Your task to perform on an android device: turn on the 12-hour format for clock Image 0: 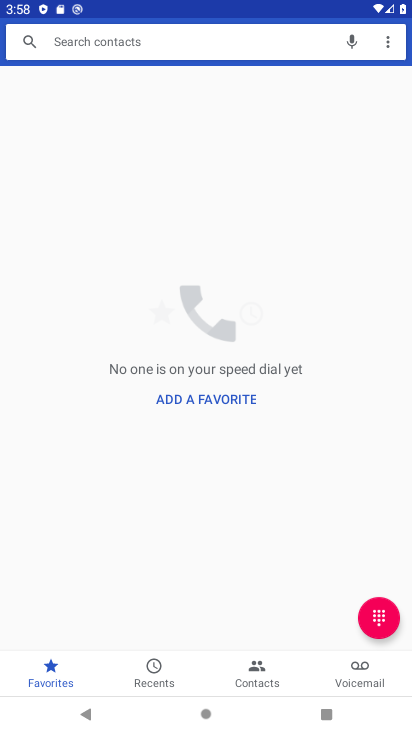
Step 0: press home button
Your task to perform on an android device: turn on the 12-hour format for clock Image 1: 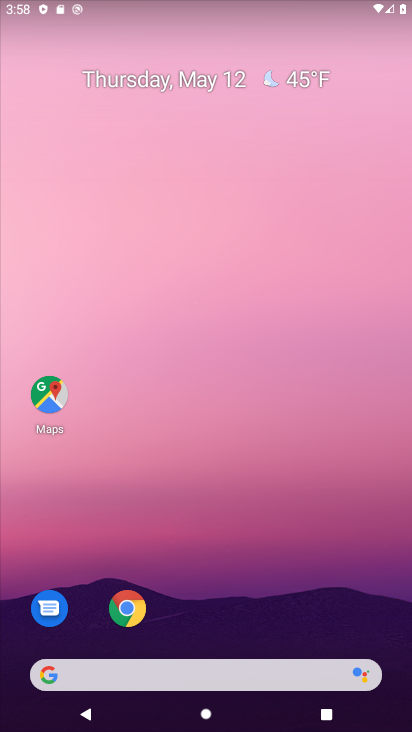
Step 1: drag from (262, 580) to (256, 174)
Your task to perform on an android device: turn on the 12-hour format for clock Image 2: 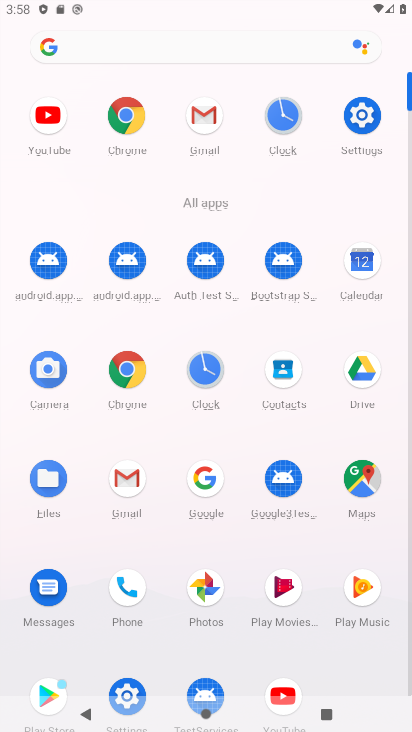
Step 2: click (289, 136)
Your task to perform on an android device: turn on the 12-hour format for clock Image 3: 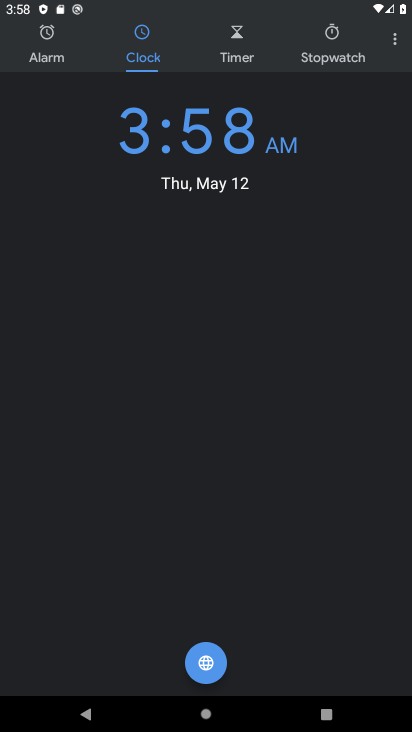
Step 3: click (386, 43)
Your task to perform on an android device: turn on the 12-hour format for clock Image 4: 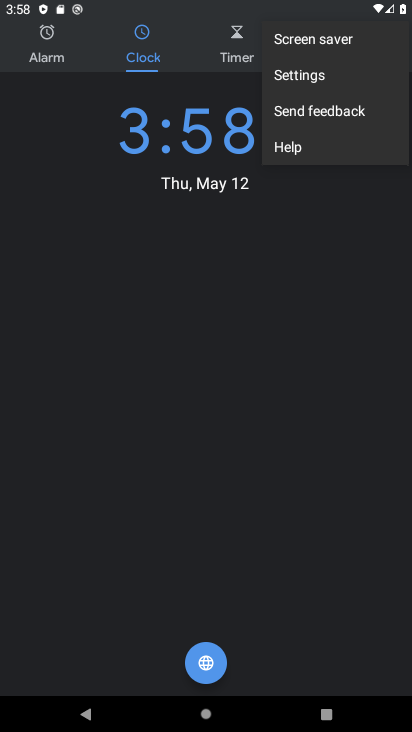
Step 4: click (330, 72)
Your task to perform on an android device: turn on the 12-hour format for clock Image 5: 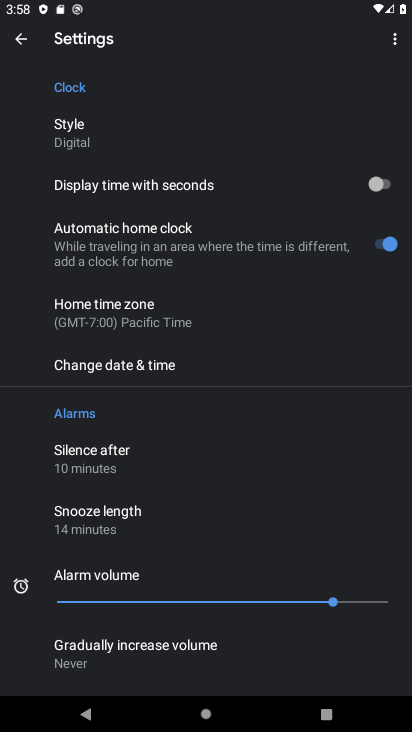
Step 5: click (188, 358)
Your task to perform on an android device: turn on the 12-hour format for clock Image 6: 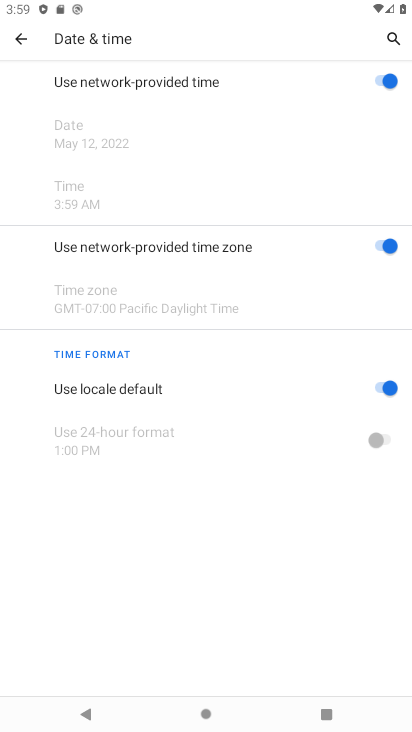
Step 6: task complete